Your task to perform on an android device: Open calendar and show me the third week of next month Image 0: 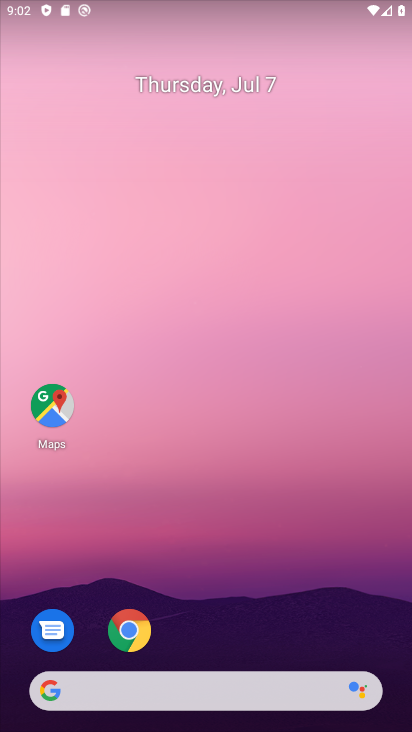
Step 0: drag from (212, 672) to (213, 300)
Your task to perform on an android device: Open calendar and show me the third week of next month Image 1: 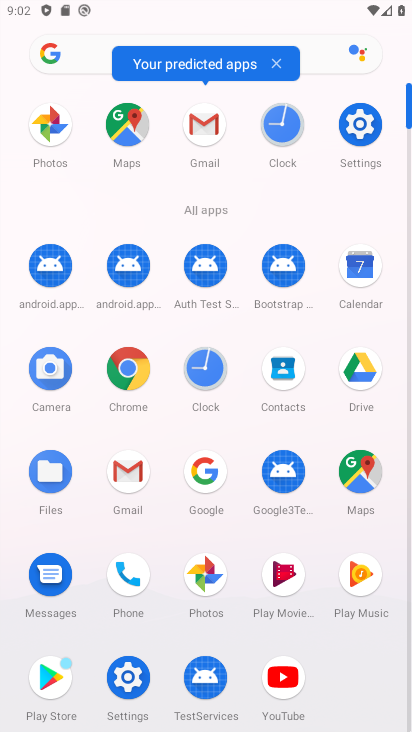
Step 1: click (351, 272)
Your task to perform on an android device: Open calendar and show me the third week of next month Image 2: 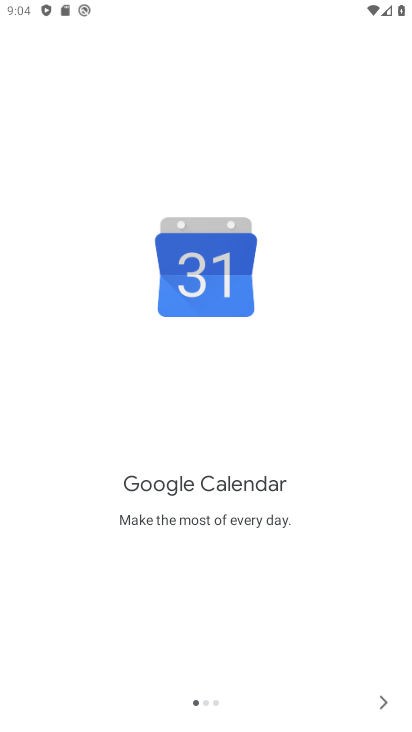
Step 2: click (382, 706)
Your task to perform on an android device: Open calendar and show me the third week of next month Image 3: 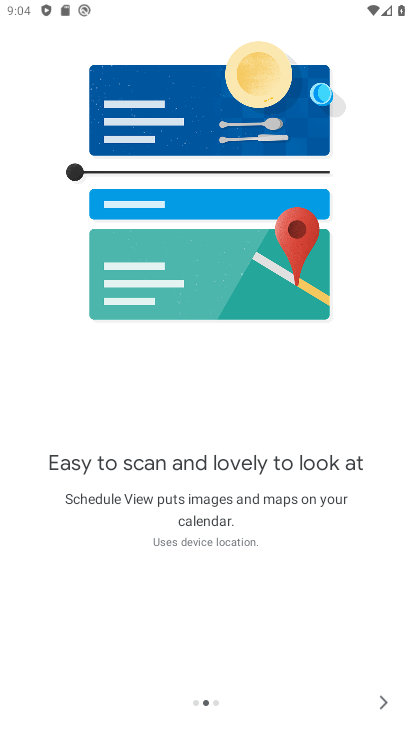
Step 3: click (382, 706)
Your task to perform on an android device: Open calendar and show me the third week of next month Image 4: 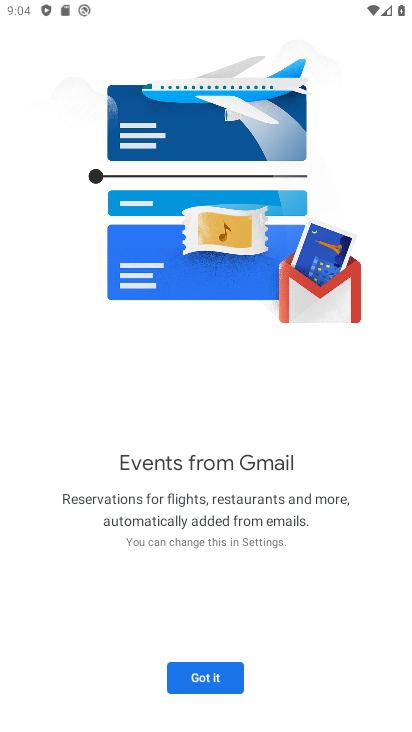
Step 4: click (215, 670)
Your task to perform on an android device: Open calendar and show me the third week of next month Image 5: 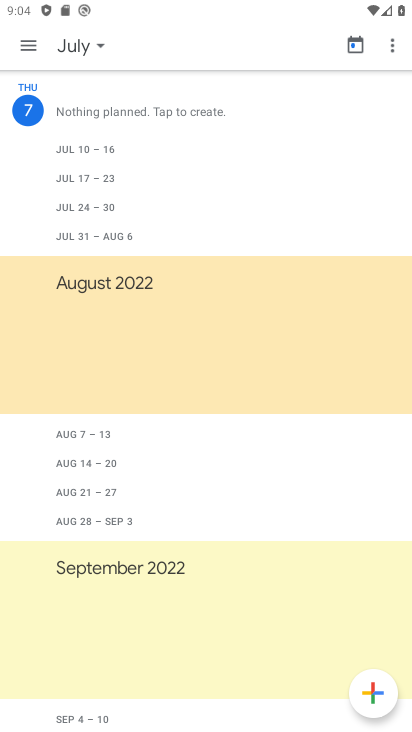
Step 5: click (82, 42)
Your task to perform on an android device: Open calendar and show me the third week of next month Image 6: 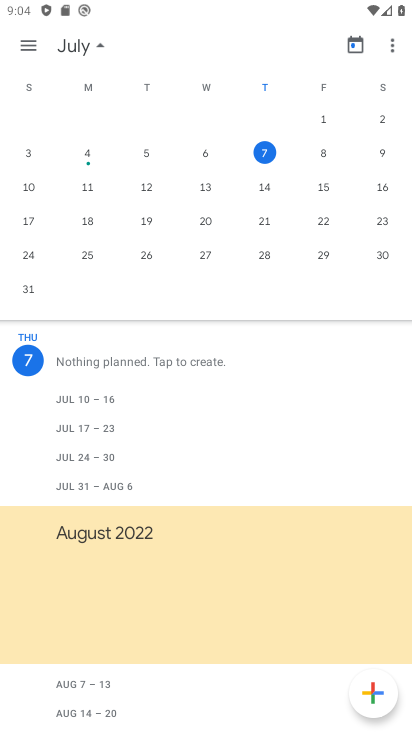
Step 6: drag from (368, 253) to (14, 231)
Your task to perform on an android device: Open calendar and show me the third week of next month Image 7: 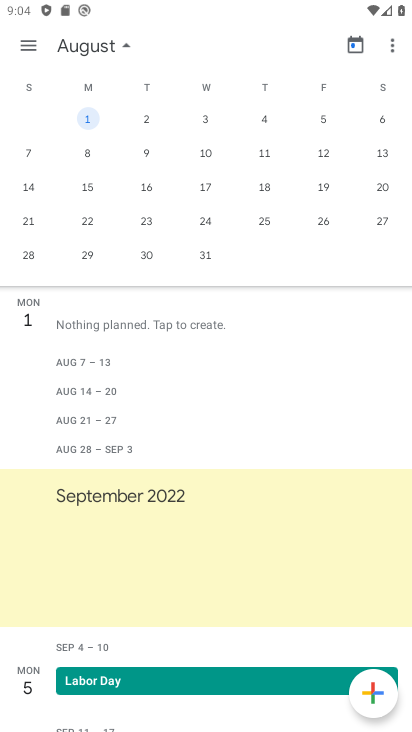
Step 7: click (31, 190)
Your task to perform on an android device: Open calendar and show me the third week of next month Image 8: 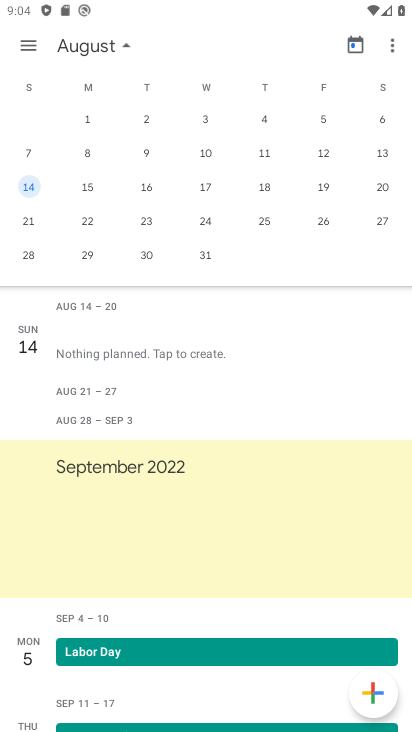
Step 8: task complete